Your task to perform on an android device: Go to Wikipedia Image 0: 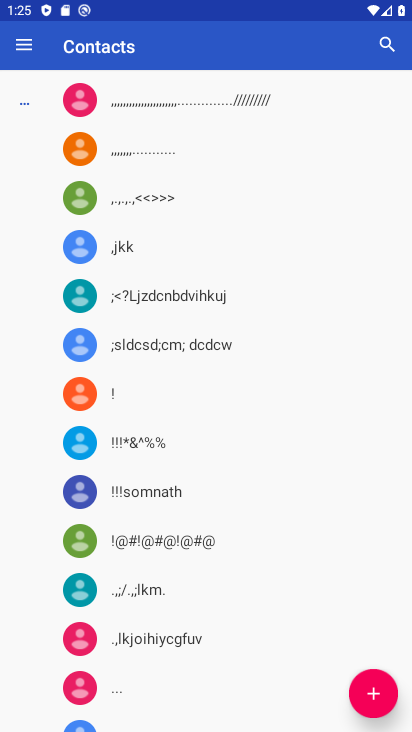
Step 0: press home button
Your task to perform on an android device: Go to Wikipedia Image 1: 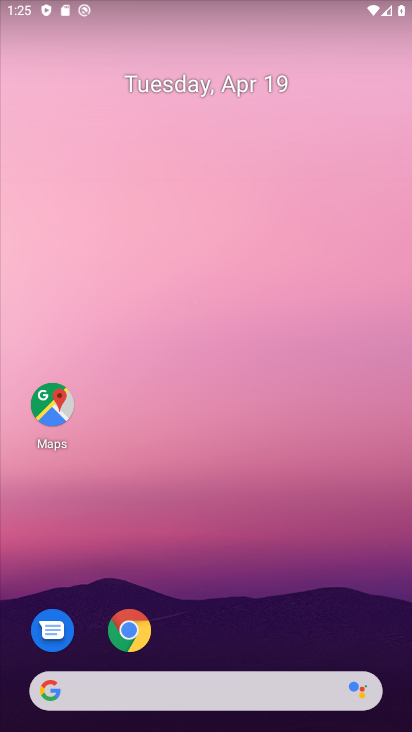
Step 1: click (123, 628)
Your task to perform on an android device: Go to Wikipedia Image 2: 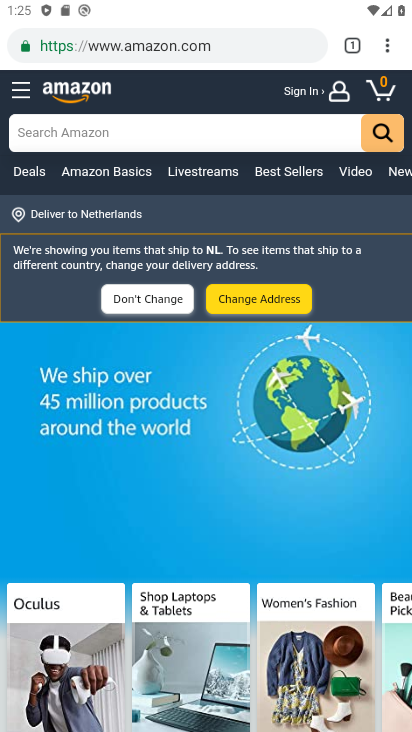
Step 2: click (355, 47)
Your task to perform on an android device: Go to Wikipedia Image 3: 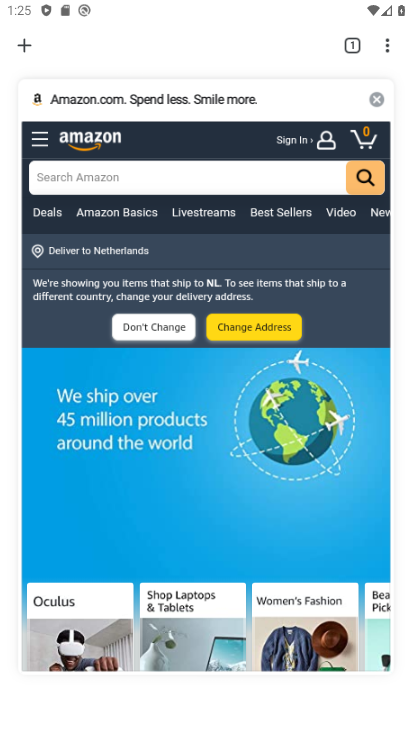
Step 3: click (19, 47)
Your task to perform on an android device: Go to Wikipedia Image 4: 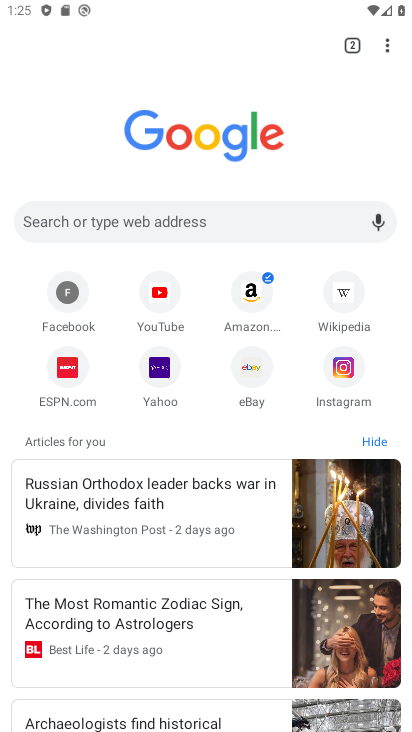
Step 4: click (344, 300)
Your task to perform on an android device: Go to Wikipedia Image 5: 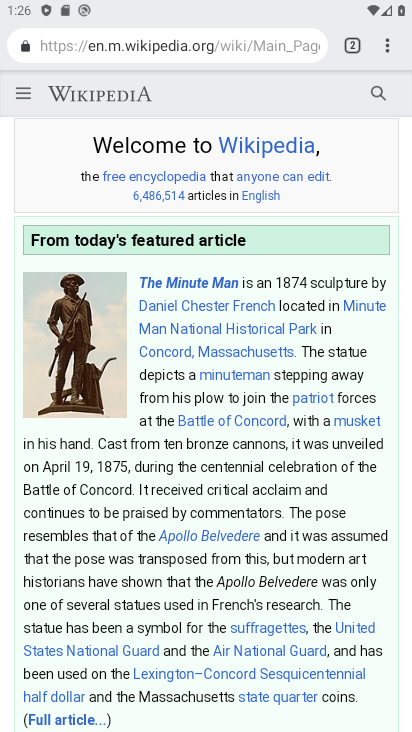
Step 5: task complete